Your task to perform on an android device: Go to settings Image 0: 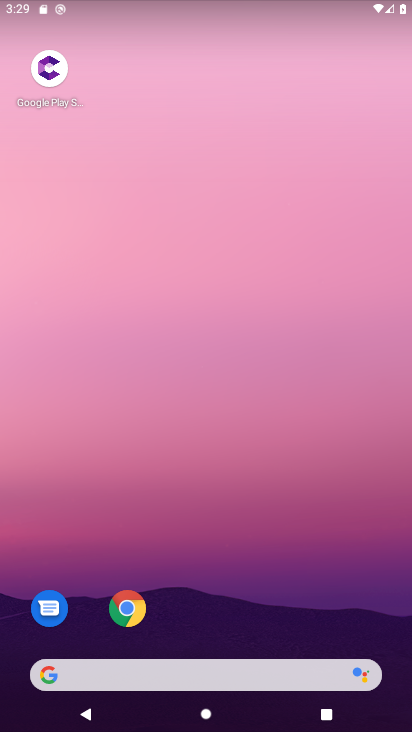
Step 0: drag from (286, 530) to (315, 392)
Your task to perform on an android device: Go to settings Image 1: 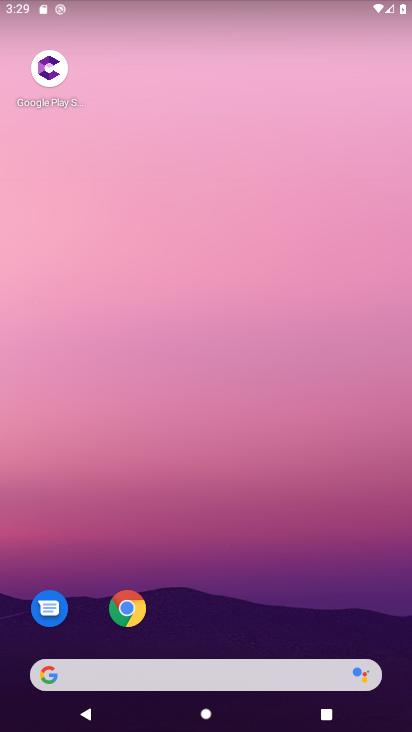
Step 1: drag from (183, 652) to (282, 257)
Your task to perform on an android device: Go to settings Image 2: 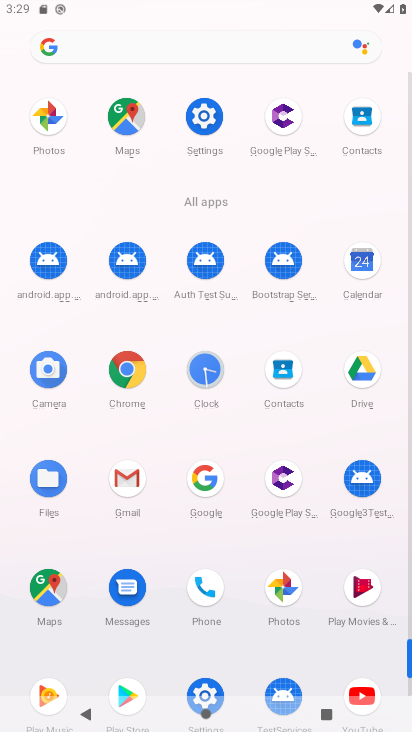
Step 2: click (211, 694)
Your task to perform on an android device: Go to settings Image 3: 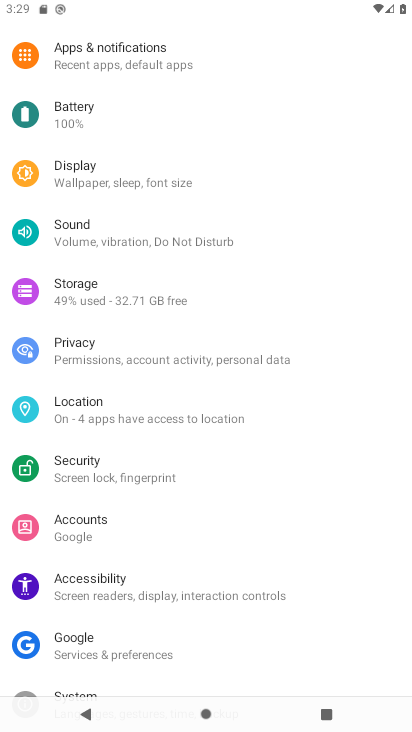
Step 3: task complete